Your task to perform on an android device: turn notification dots on Image 0: 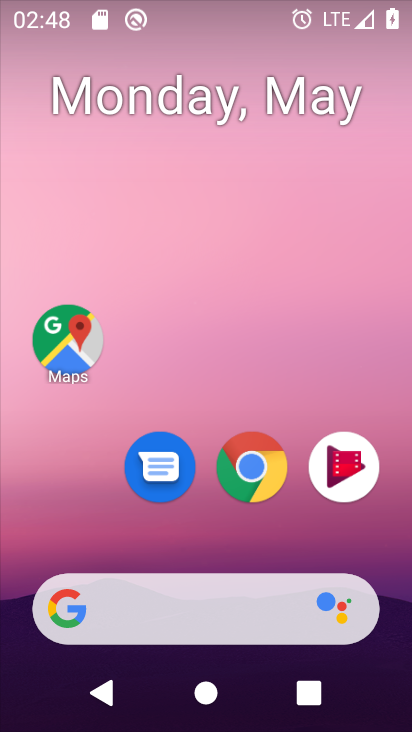
Step 0: drag from (289, 426) to (288, 203)
Your task to perform on an android device: turn notification dots on Image 1: 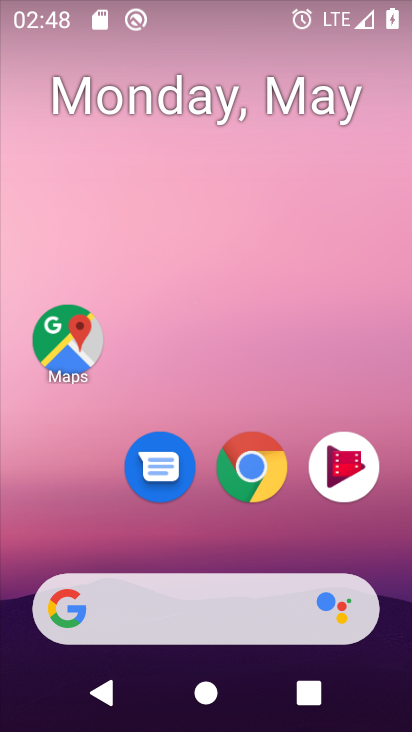
Step 1: drag from (270, 450) to (266, 174)
Your task to perform on an android device: turn notification dots on Image 2: 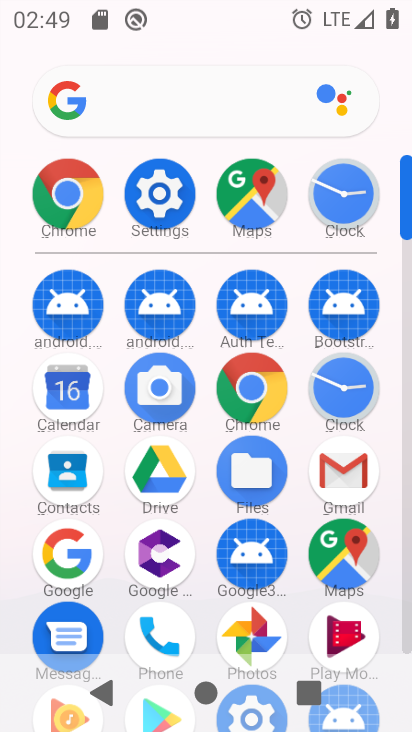
Step 2: click (166, 189)
Your task to perform on an android device: turn notification dots on Image 3: 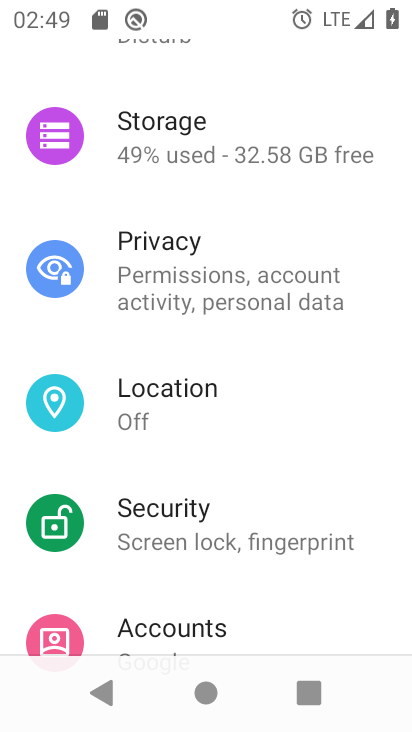
Step 3: drag from (184, 91) to (218, 469)
Your task to perform on an android device: turn notification dots on Image 4: 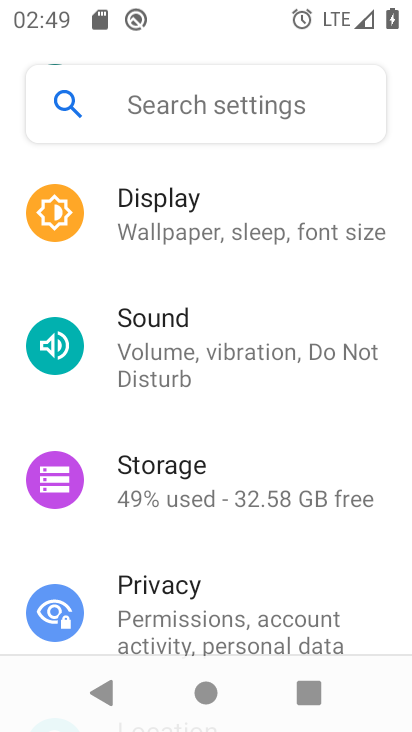
Step 4: click (151, 107)
Your task to perform on an android device: turn notification dots on Image 5: 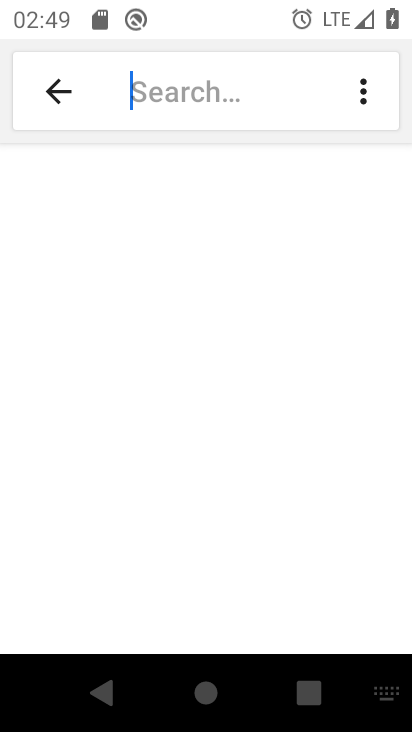
Step 5: click (151, 81)
Your task to perform on an android device: turn notification dots on Image 6: 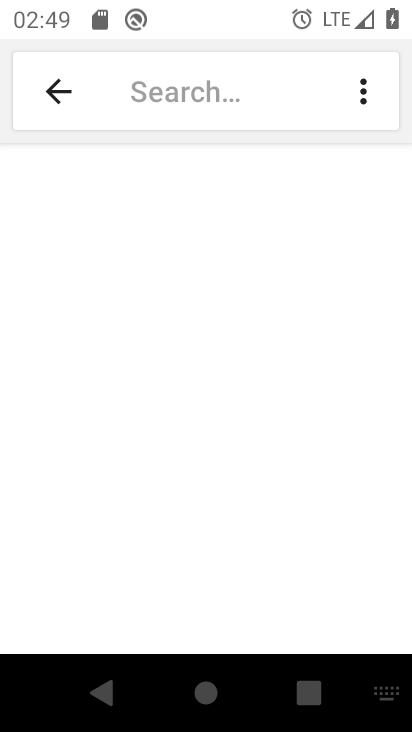
Step 6: type "notification dots"
Your task to perform on an android device: turn notification dots on Image 7: 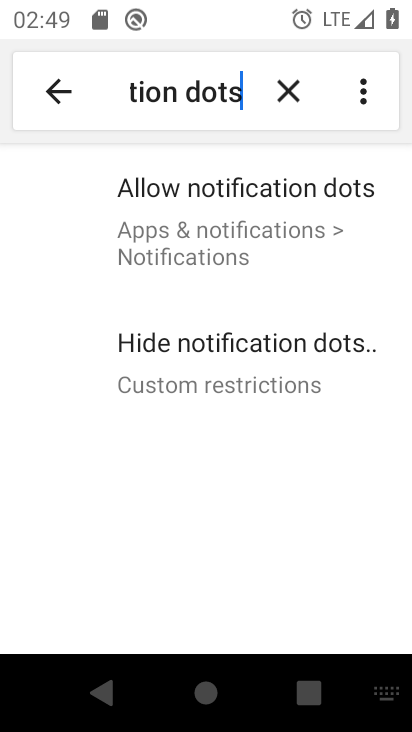
Step 7: click (223, 193)
Your task to perform on an android device: turn notification dots on Image 8: 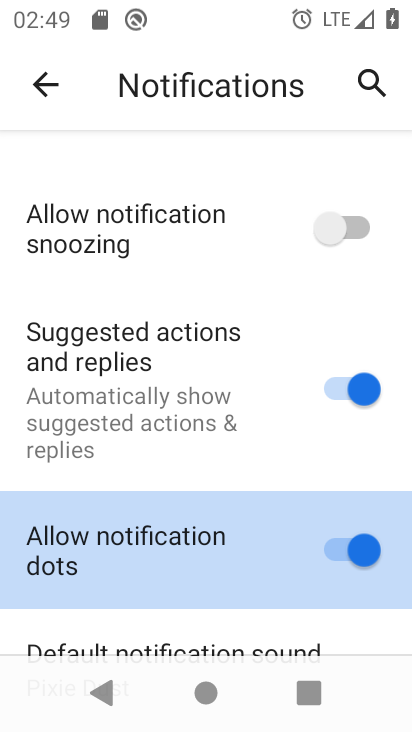
Step 8: task complete